Your task to perform on an android device: Open location settings Image 0: 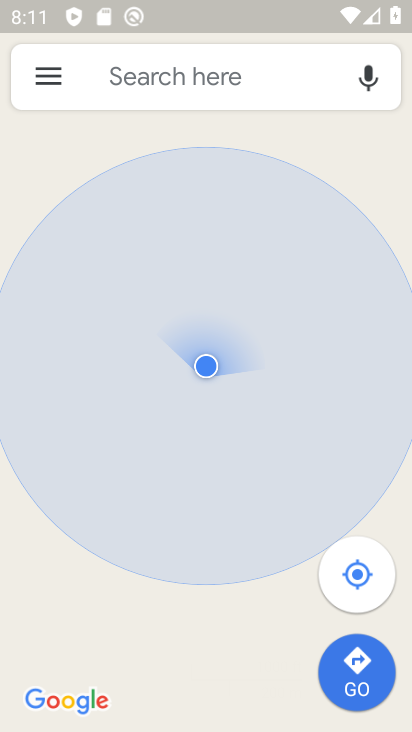
Step 0: press home button
Your task to perform on an android device: Open location settings Image 1: 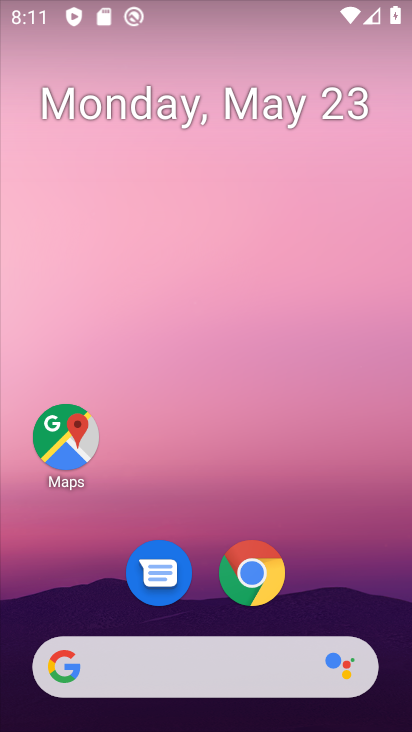
Step 1: drag from (207, 619) to (243, 103)
Your task to perform on an android device: Open location settings Image 2: 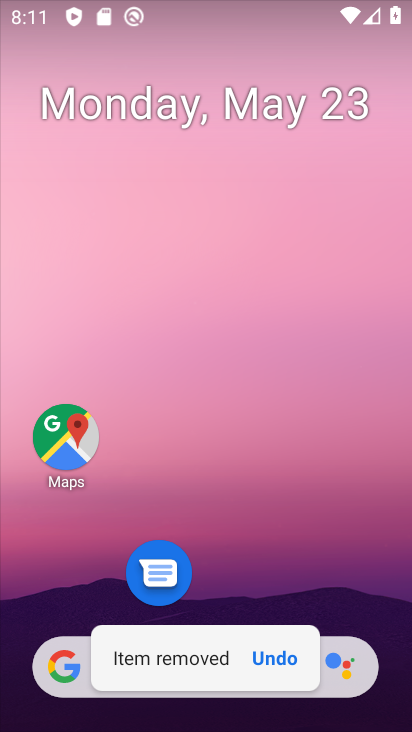
Step 2: click (275, 654)
Your task to perform on an android device: Open location settings Image 3: 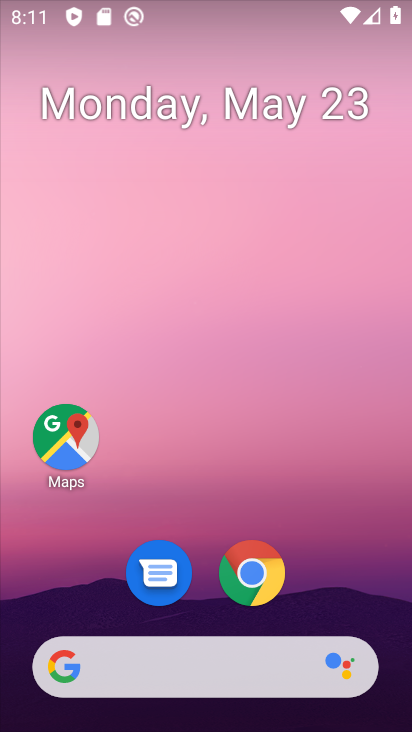
Step 3: drag from (336, 624) to (359, 17)
Your task to perform on an android device: Open location settings Image 4: 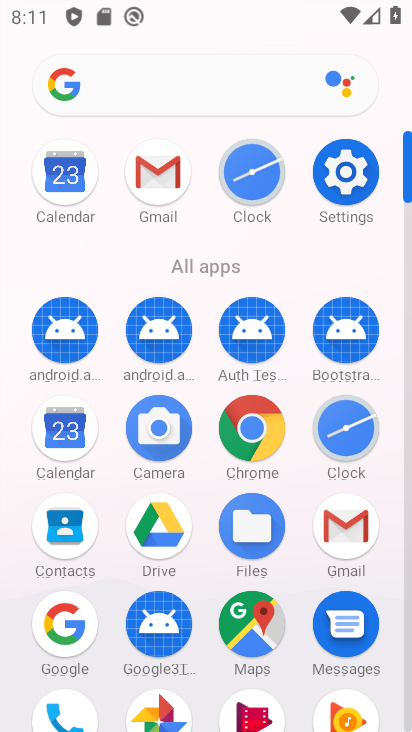
Step 4: click (342, 163)
Your task to perform on an android device: Open location settings Image 5: 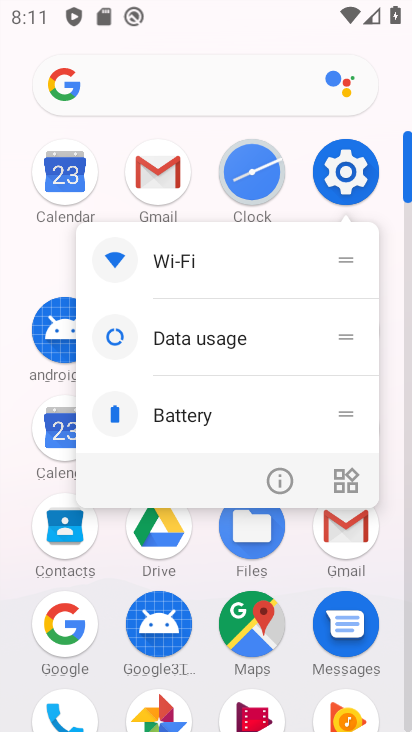
Step 5: click (342, 163)
Your task to perform on an android device: Open location settings Image 6: 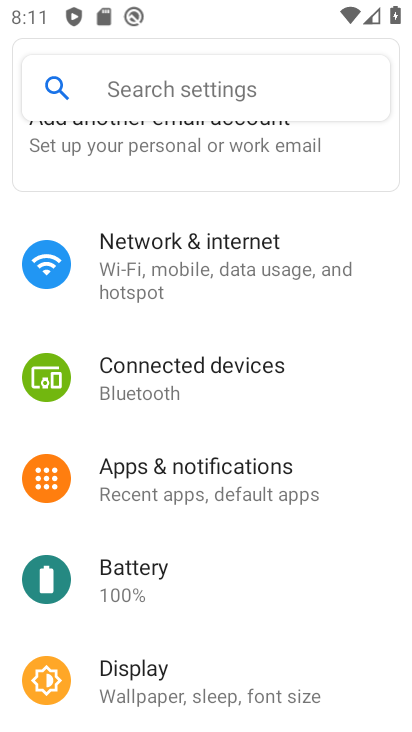
Step 6: drag from (225, 652) to (276, 180)
Your task to perform on an android device: Open location settings Image 7: 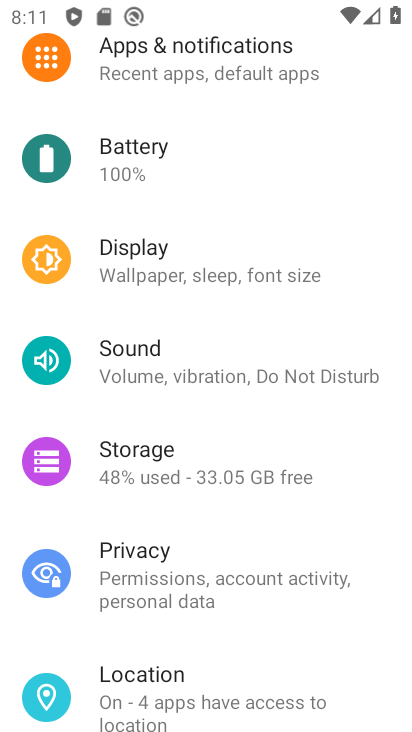
Step 7: click (196, 683)
Your task to perform on an android device: Open location settings Image 8: 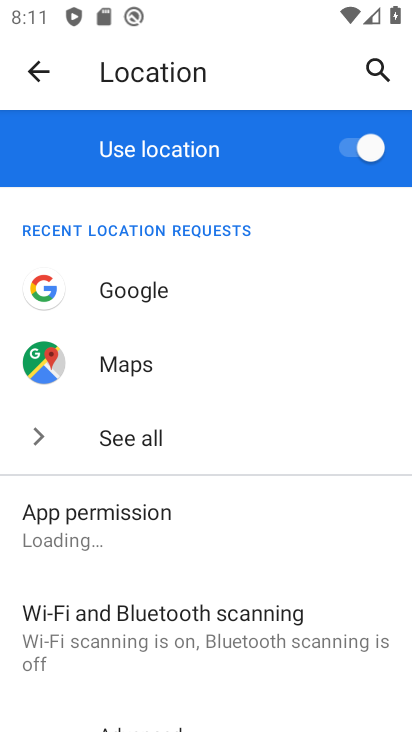
Step 8: drag from (231, 655) to (290, 143)
Your task to perform on an android device: Open location settings Image 9: 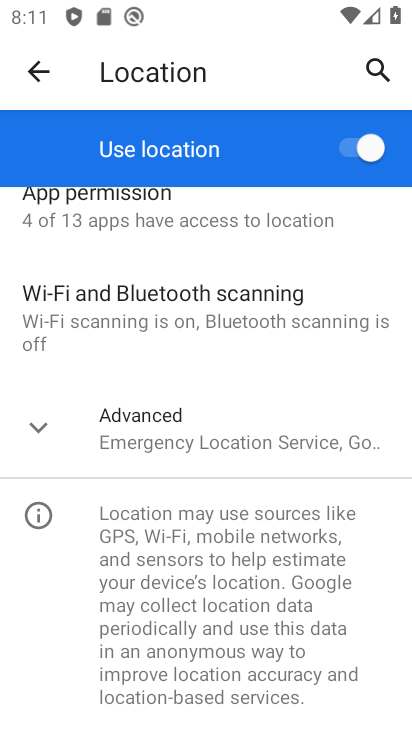
Step 9: click (36, 427)
Your task to perform on an android device: Open location settings Image 10: 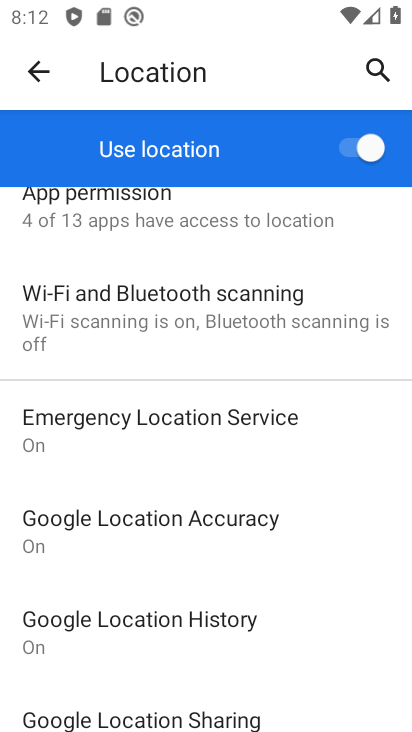
Step 10: task complete